Your task to perform on an android device: Open settings Image 0: 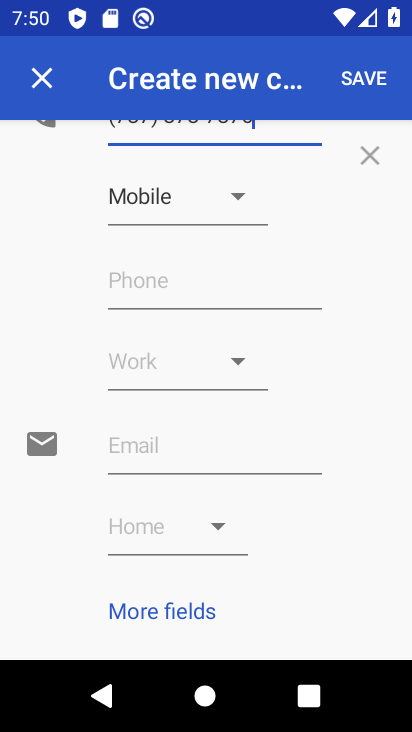
Step 0: press home button
Your task to perform on an android device: Open settings Image 1: 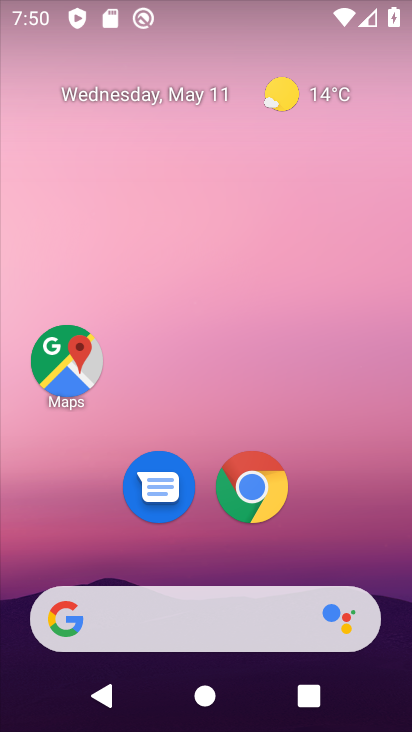
Step 1: drag from (254, 571) to (286, 189)
Your task to perform on an android device: Open settings Image 2: 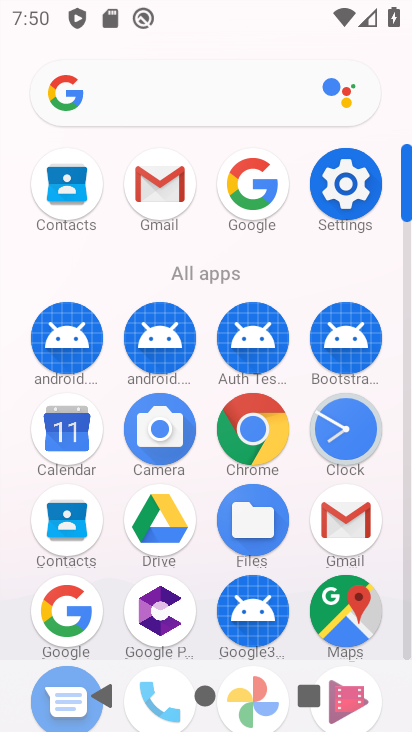
Step 2: click (339, 185)
Your task to perform on an android device: Open settings Image 3: 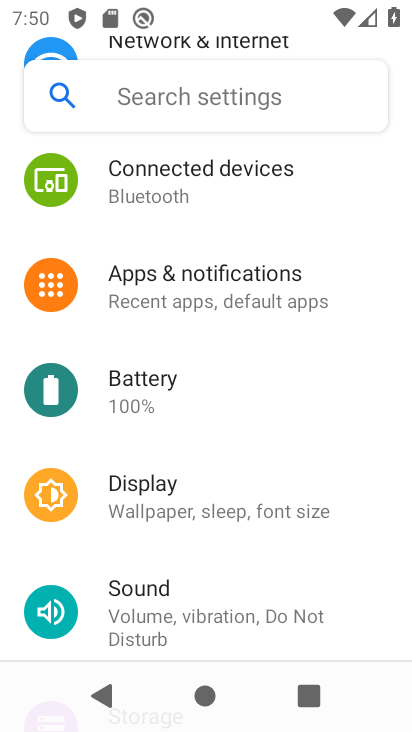
Step 3: task complete